Your task to perform on an android device: turn off picture-in-picture Image 0: 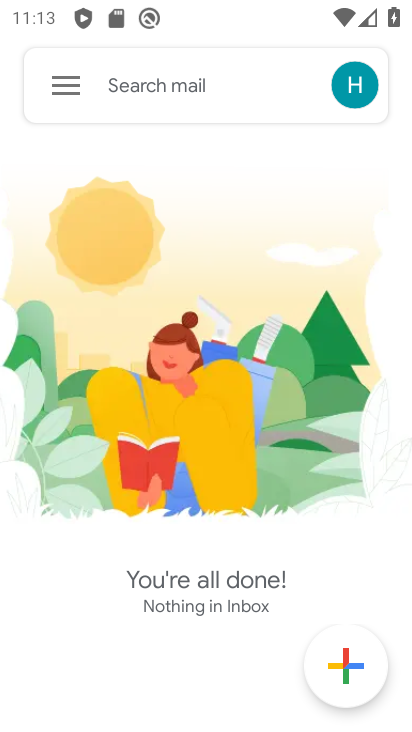
Step 0: press home button
Your task to perform on an android device: turn off picture-in-picture Image 1: 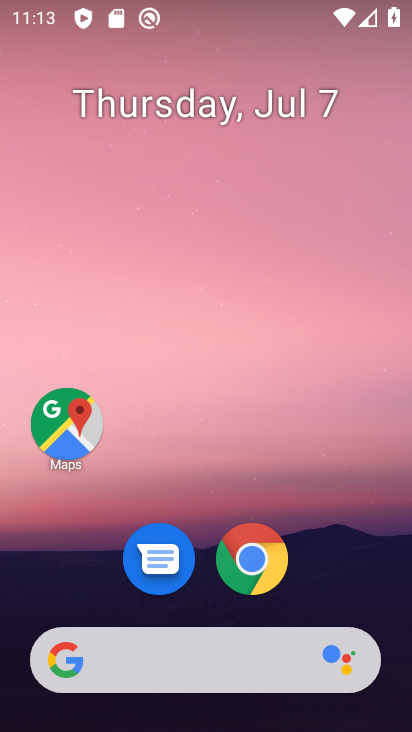
Step 1: drag from (383, 581) to (376, 92)
Your task to perform on an android device: turn off picture-in-picture Image 2: 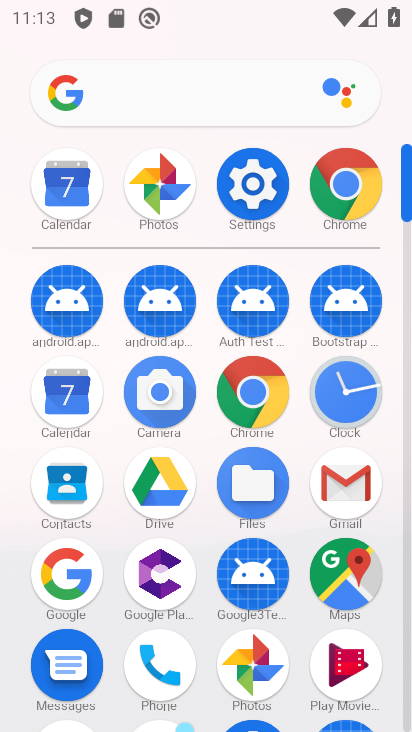
Step 2: click (272, 205)
Your task to perform on an android device: turn off picture-in-picture Image 3: 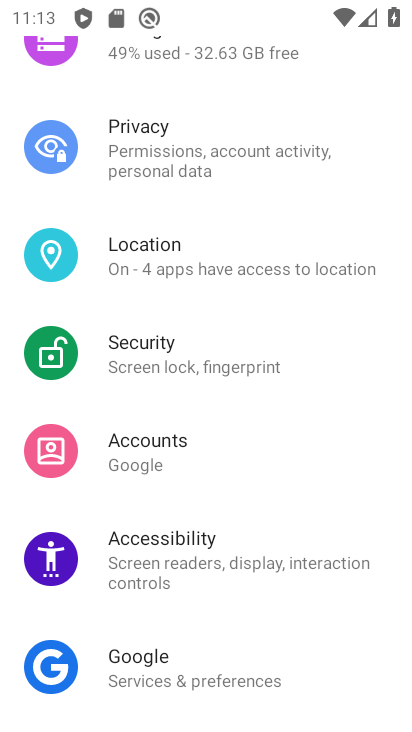
Step 3: drag from (343, 312) to (359, 413)
Your task to perform on an android device: turn off picture-in-picture Image 4: 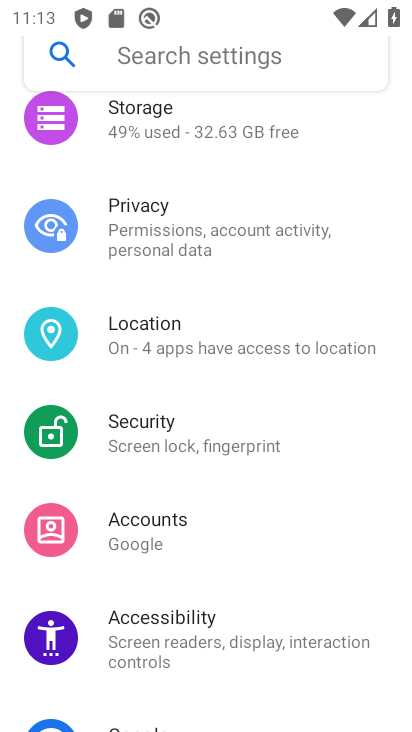
Step 4: drag from (367, 277) to (365, 398)
Your task to perform on an android device: turn off picture-in-picture Image 5: 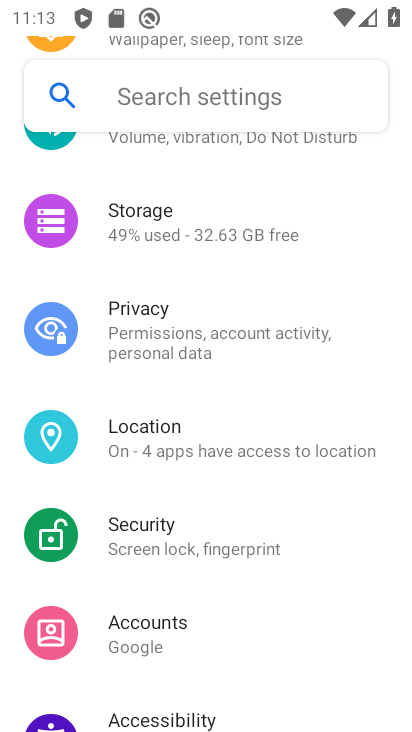
Step 5: drag from (365, 240) to (365, 371)
Your task to perform on an android device: turn off picture-in-picture Image 6: 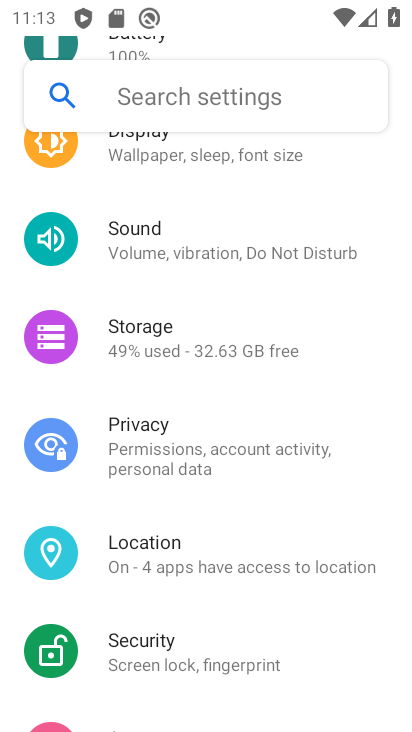
Step 6: drag from (375, 214) to (375, 356)
Your task to perform on an android device: turn off picture-in-picture Image 7: 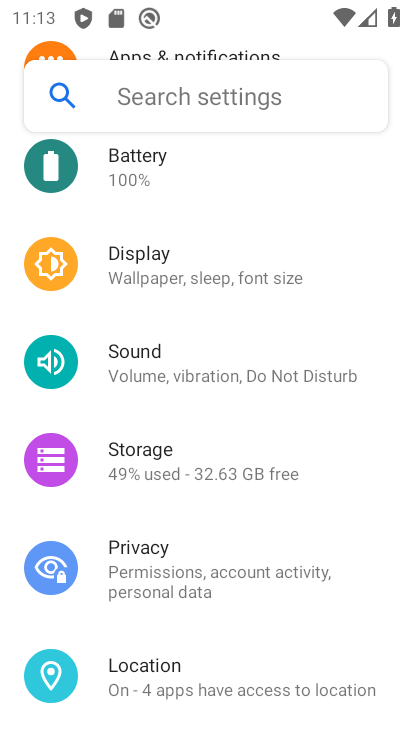
Step 7: drag from (379, 237) to (379, 402)
Your task to perform on an android device: turn off picture-in-picture Image 8: 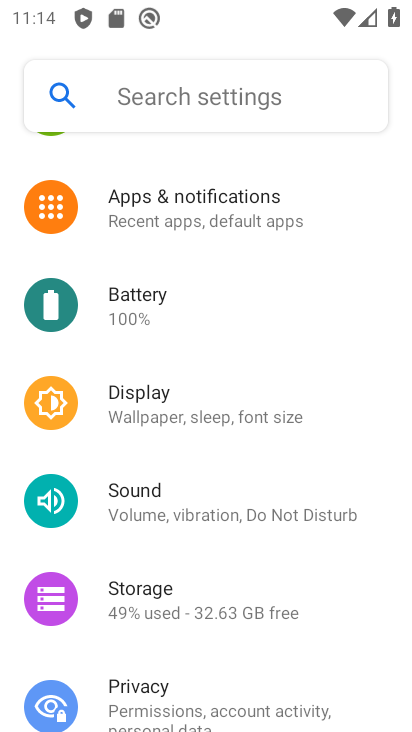
Step 8: drag from (359, 235) to (359, 383)
Your task to perform on an android device: turn off picture-in-picture Image 9: 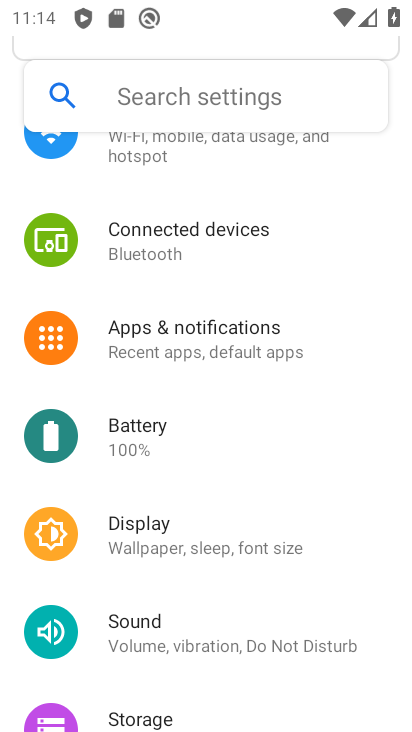
Step 9: drag from (355, 269) to (355, 392)
Your task to perform on an android device: turn off picture-in-picture Image 10: 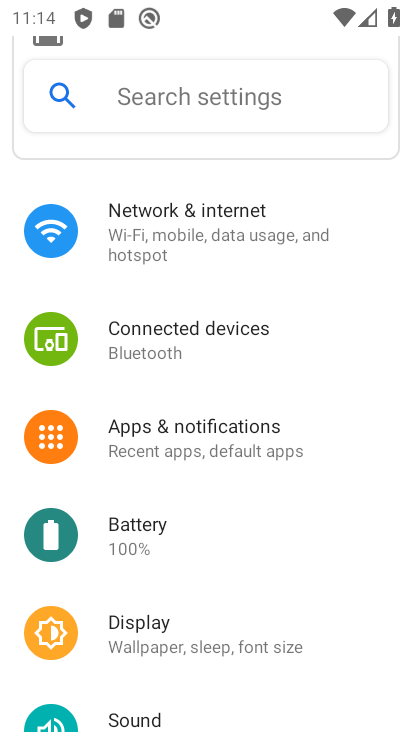
Step 10: drag from (335, 269) to (368, 556)
Your task to perform on an android device: turn off picture-in-picture Image 11: 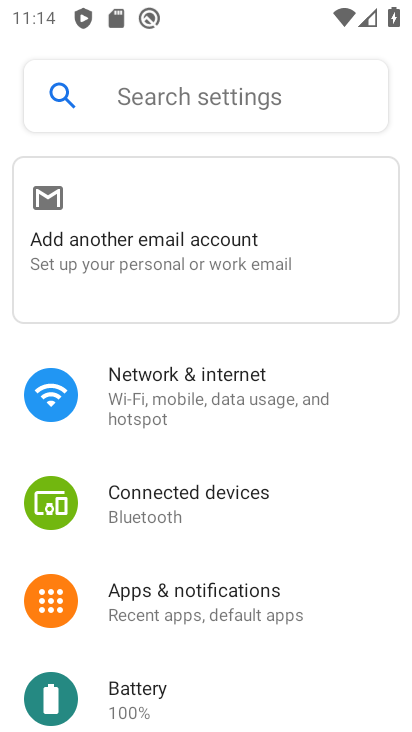
Step 11: click (263, 608)
Your task to perform on an android device: turn off picture-in-picture Image 12: 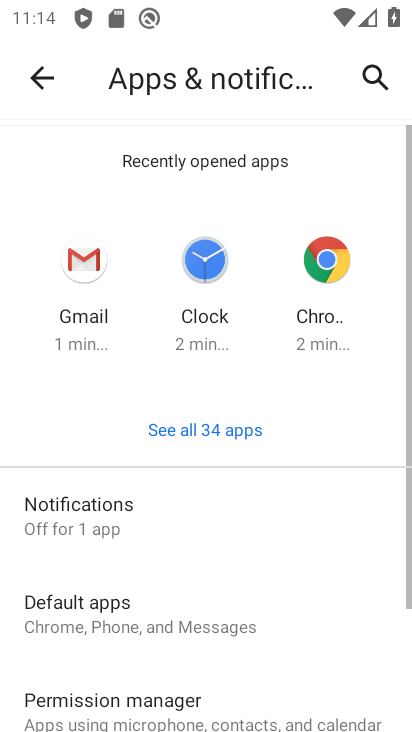
Step 12: drag from (331, 589) to (338, 451)
Your task to perform on an android device: turn off picture-in-picture Image 13: 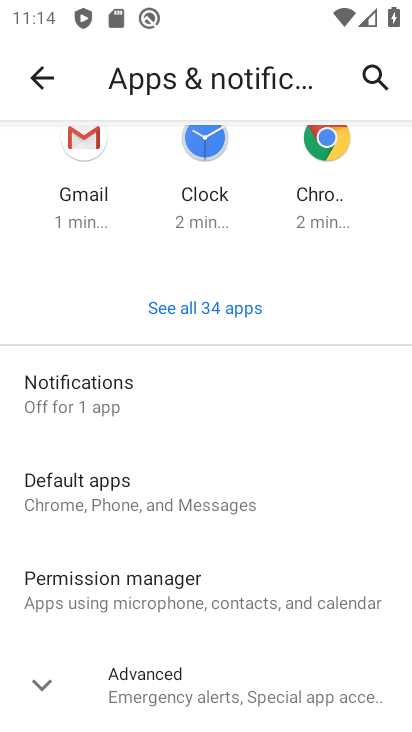
Step 13: drag from (318, 567) to (317, 414)
Your task to perform on an android device: turn off picture-in-picture Image 14: 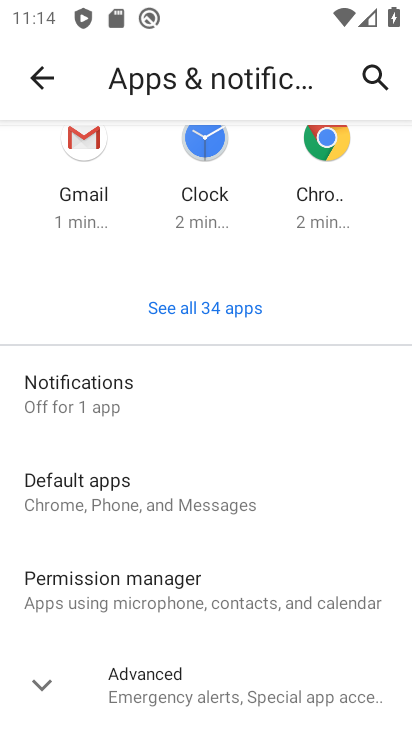
Step 14: click (198, 680)
Your task to perform on an android device: turn off picture-in-picture Image 15: 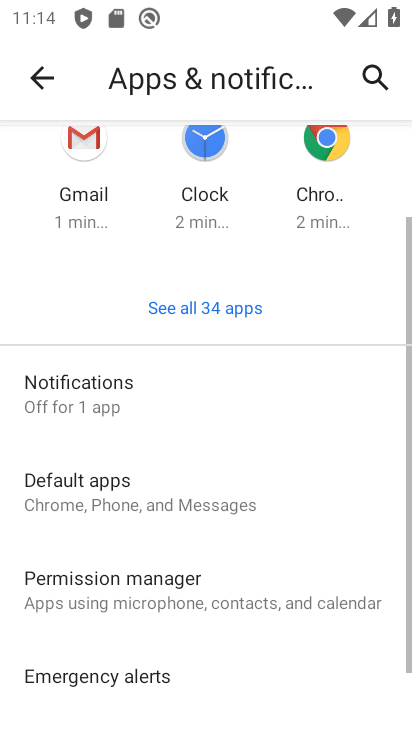
Step 15: drag from (329, 593) to (329, 392)
Your task to perform on an android device: turn off picture-in-picture Image 16: 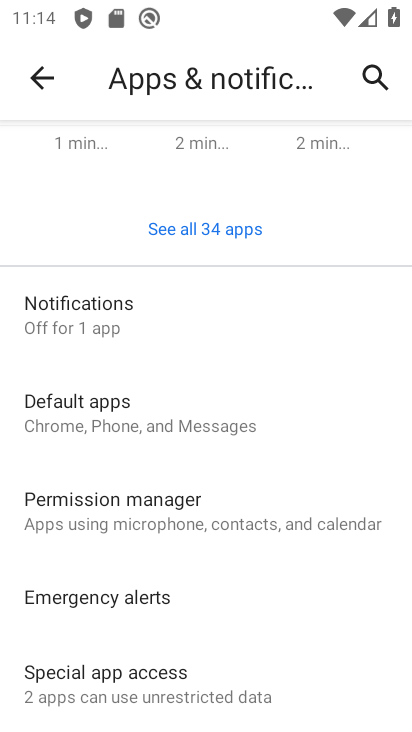
Step 16: click (273, 680)
Your task to perform on an android device: turn off picture-in-picture Image 17: 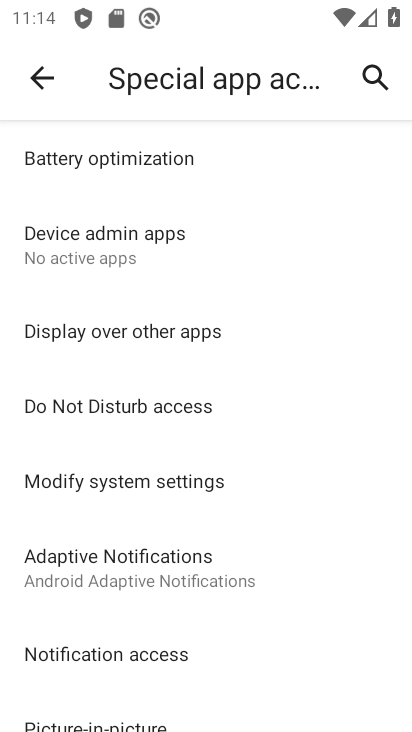
Step 17: drag from (333, 610) to (333, 519)
Your task to perform on an android device: turn off picture-in-picture Image 18: 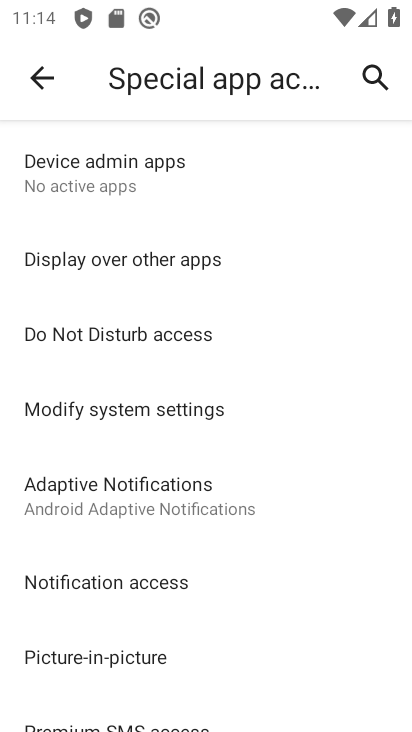
Step 18: drag from (333, 604) to (338, 517)
Your task to perform on an android device: turn off picture-in-picture Image 19: 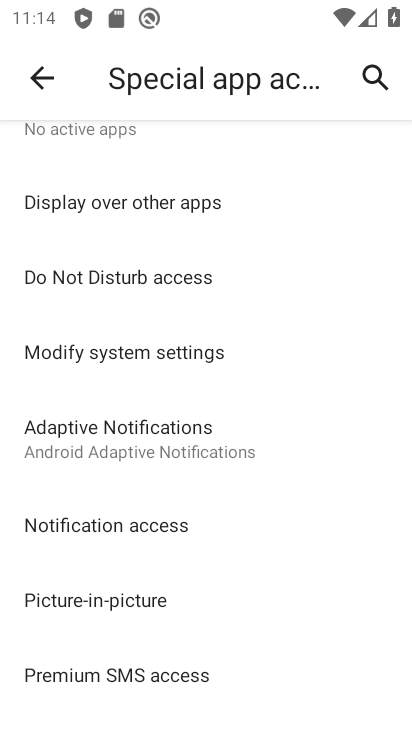
Step 19: drag from (336, 622) to (336, 509)
Your task to perform on an android device: turn off picture-in-picture Image 20: 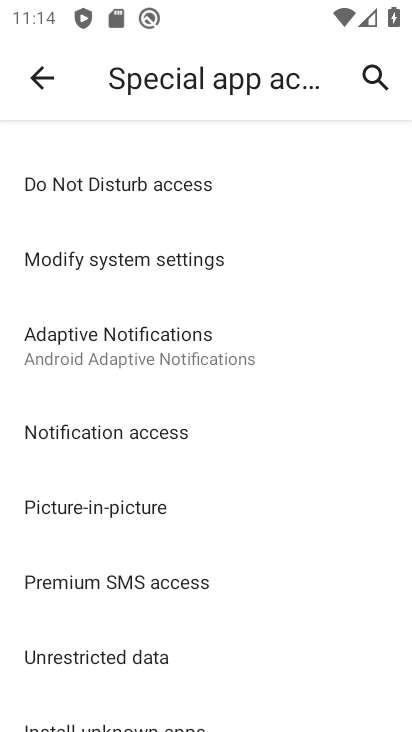
Step 20: click (305, 515)
Your task to perform on an android device: turn off picture-in-picture Image 21: 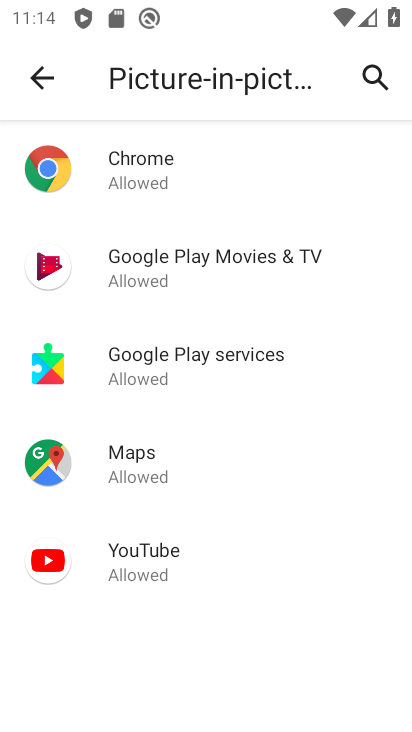
Step 21: click (269, 560)
Your task to perform on an android device: turn off picture-in-picture Image 22: 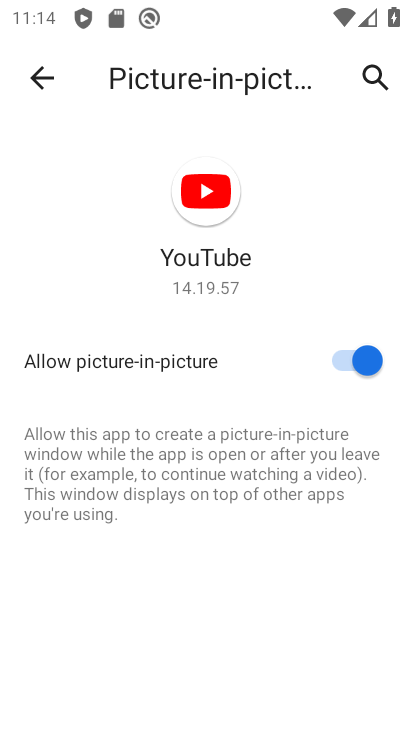
Step 22: click (363, 359)
Your task to perform on an android device: turn off picture-in-picture Image 23: 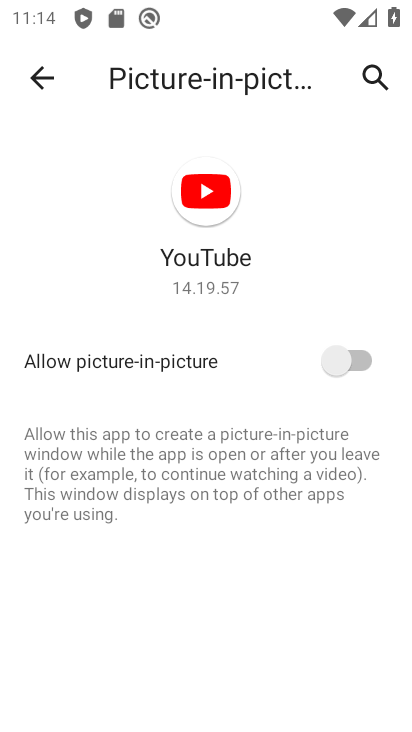
Step 23: task complete